Your task to perform on an android device: clear all cookies in the chrome app Image 0: 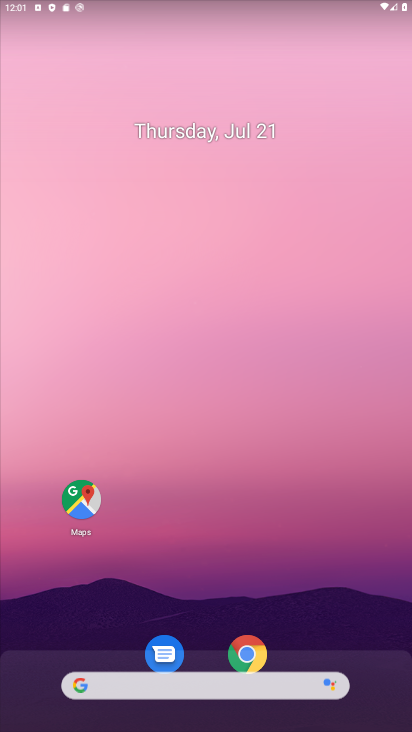
Step 0: click (256, 651)
Your task to perform on an android device: clear all cookies in the chrome app Image 1: 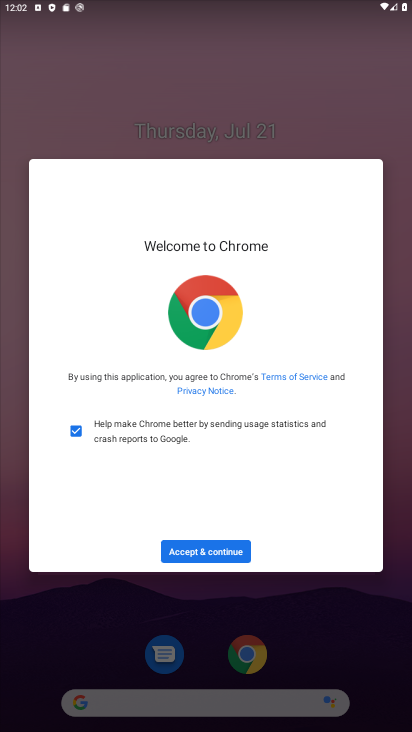
Step 1: click (208, 552)
Your task to perform on an android device: clear all cookies in the chrome app Image 2: 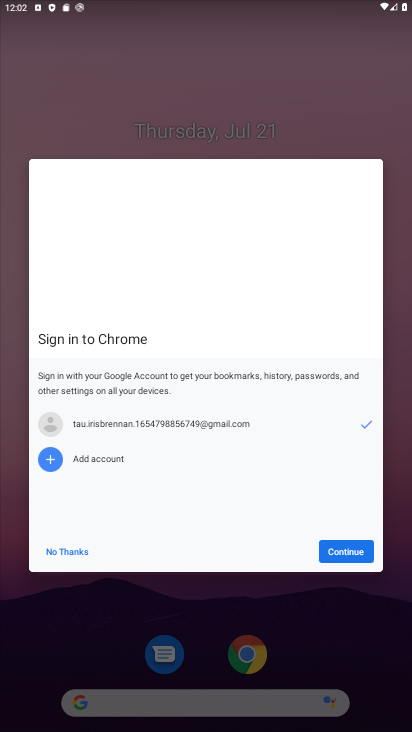
Step 2: click (350, 550)
Your task to perform on an android device: clear all cookies in the chrome app Image 3: 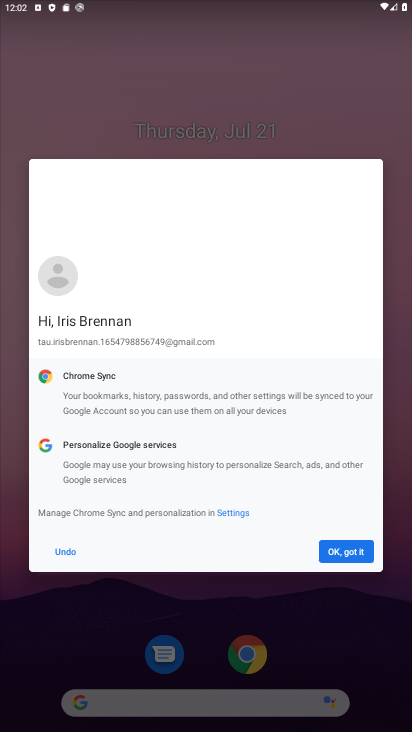
Step 3: click (350, 550)
Your task to perform on an android device: clear all cookies in the chrome app Image 4: 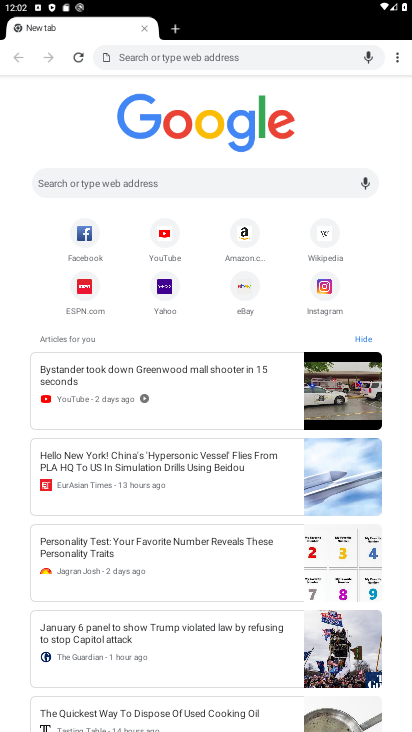
Step 4: click (405, 60)
Your task to perform on an android device: clear all cookies in the chrome app Image 5: 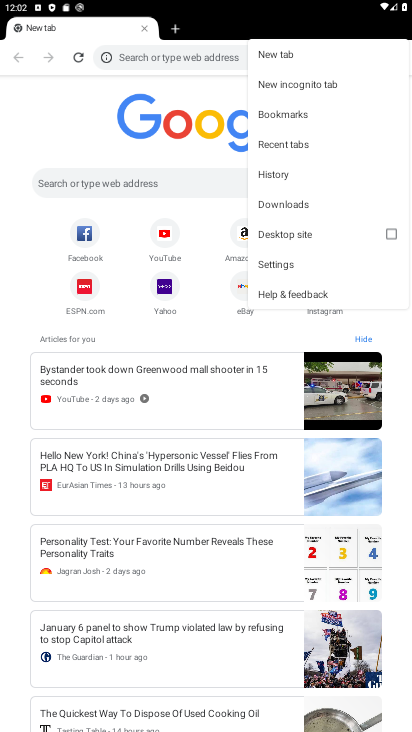
Step 5: click (260, 272)
Your task to perform on an android device: clear all cookies in the chrome app Image 6: 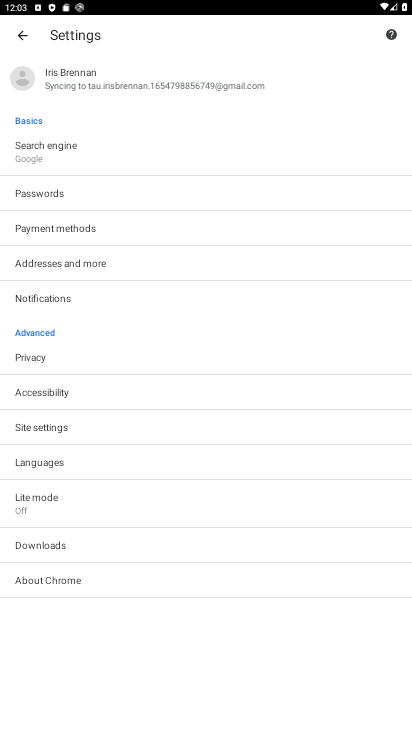
Step 6: click (23, 36)
Your task to perform on an android device: clear all cookies in the chrome app Image 7: 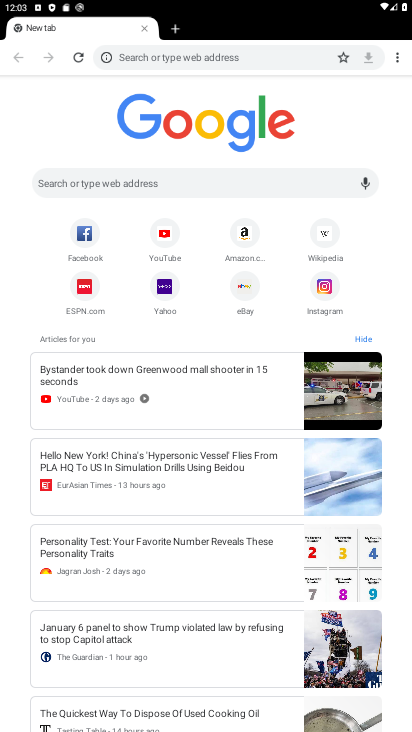
Step 7: click (23, 36)
Your task to perform on an android device: clear all cookies in the chrome app Image 8: 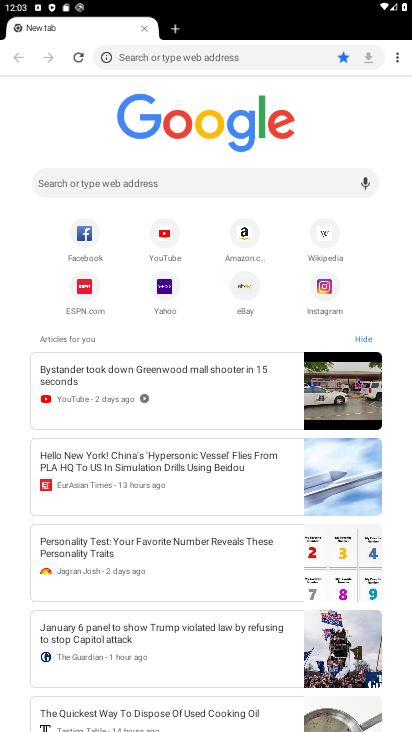
Step 8: click (395, 70)
Your task to perform on an android device: clear all cookies in the chrome app Image 9: 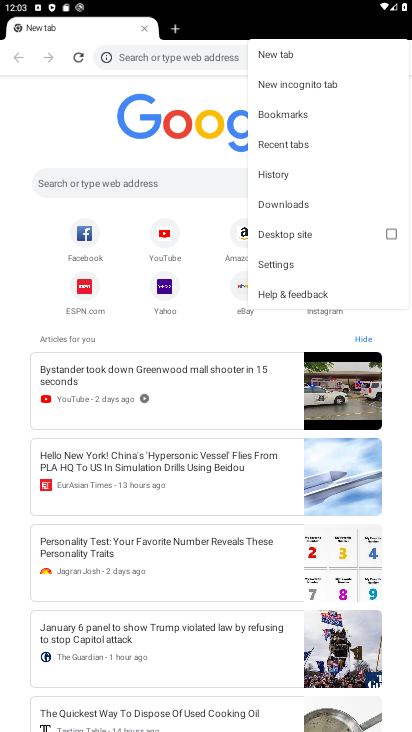
Step 9: click (269, 179)
Your task to perform on an android device: clear all cookies in the chrome app Image 10: 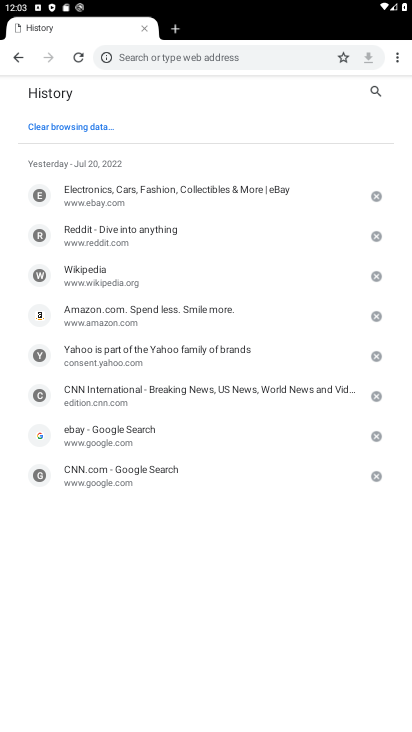
Step 10: click (111, 134)
Your task to perform on an android device: clear all cookies in the chrome app Image 11: 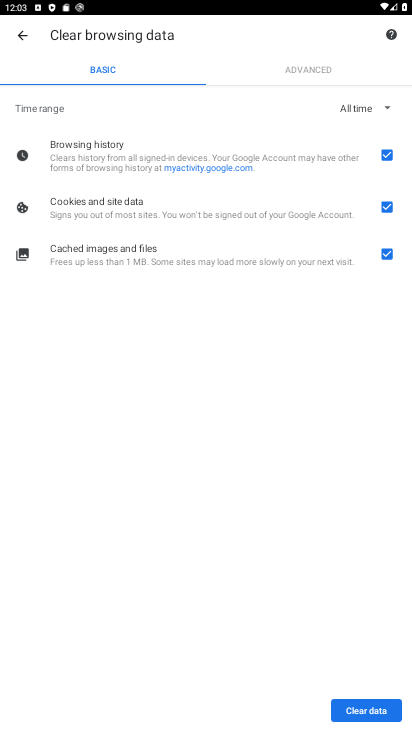
Step 11: click (391, 153)
Your task to perform on an android device: clear all cookies in the chrome app Image 12: 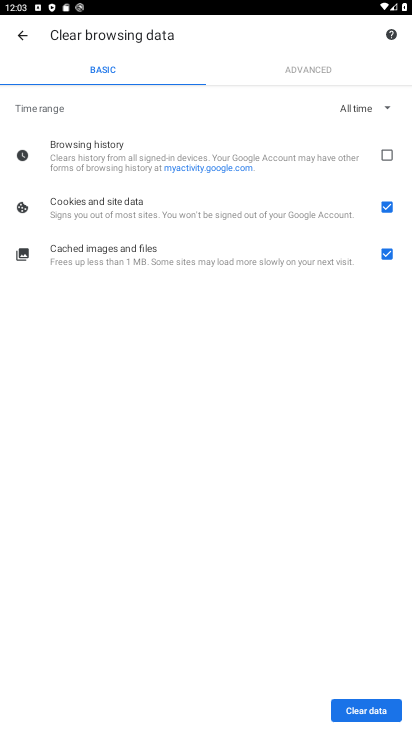
Step 12: click (386, 260)
Your task to perform on an android device: clear all cookies in the chrome app Image 13: 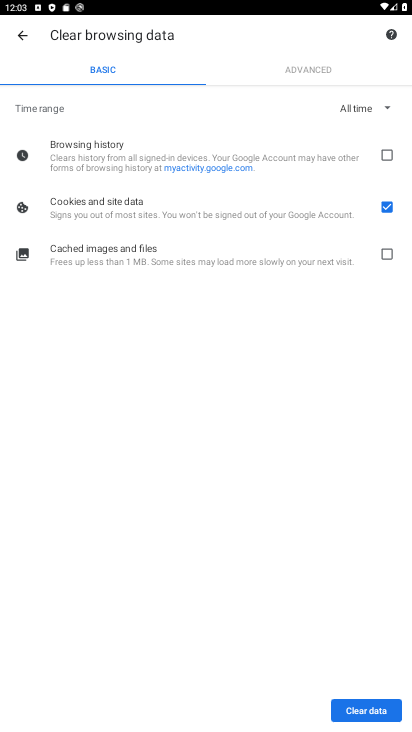
Step 13: task complete